Your task to perform on an android device: Turn off the flashlight Image 0: 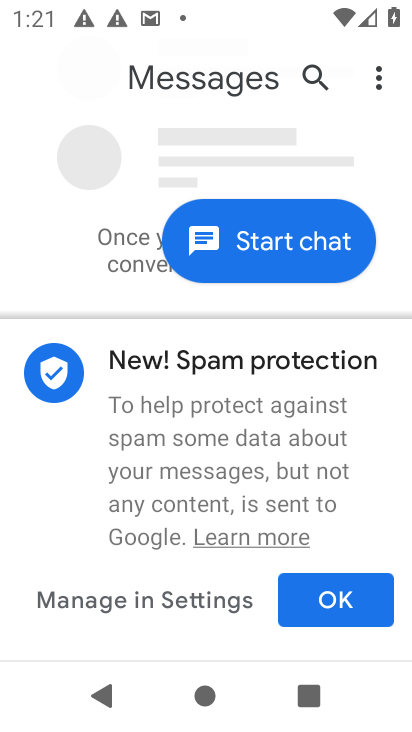
Step 0: press home button
Your task to perform on an android device: Turn off the flashlight Image 1: 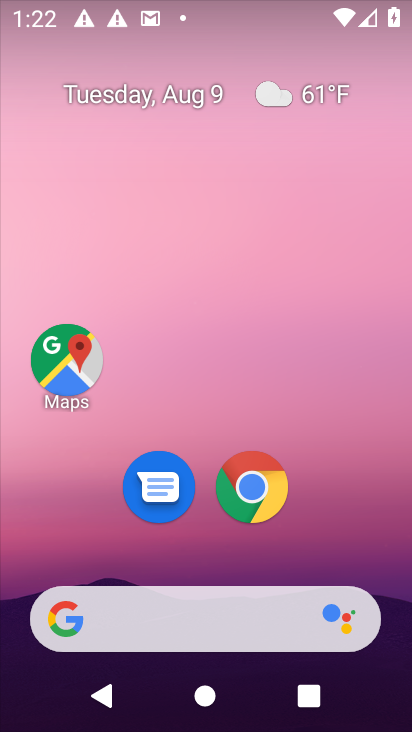
Step 1: click (33, 588)
Your task to perform on an android device: Turn off the flashlight Image 2: 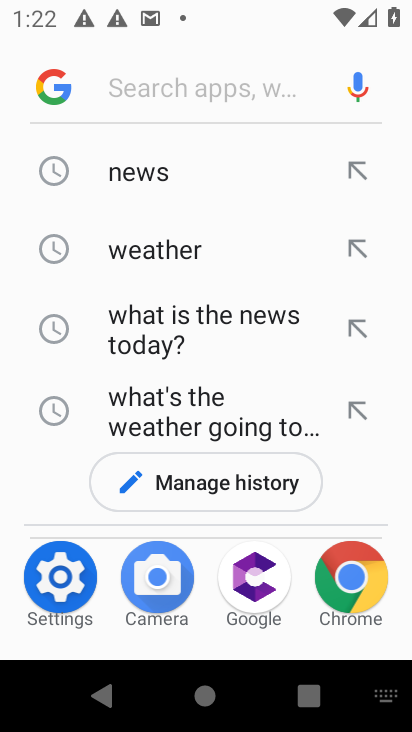
Step 2: task complete